Your task to perform on an android device: Show me popular games on the Play Store Image 0: 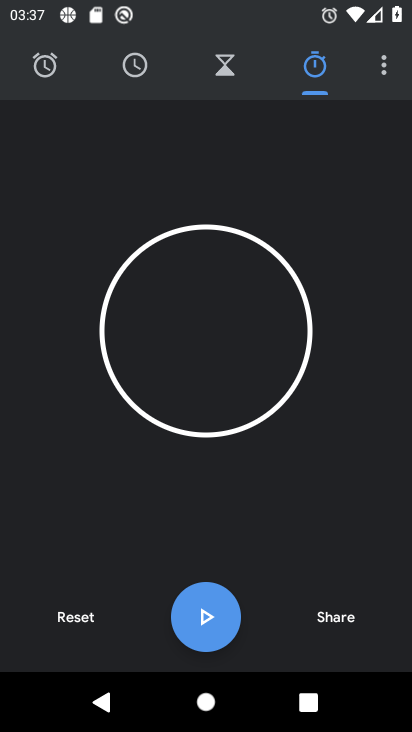
Step 0: press back button
Your task to perform on an android device: Show me popular games on the Play Store Image 1: 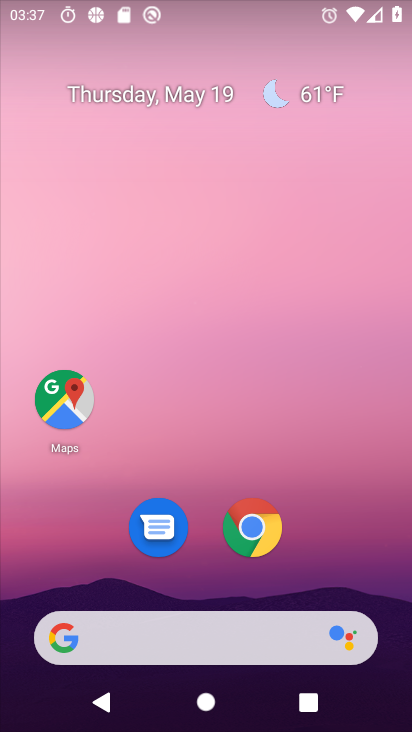
Step 1: drag from (233, 588) to (292, 2)
Your task to perform on an android device: Show me popular games on the Play Store Image 2: 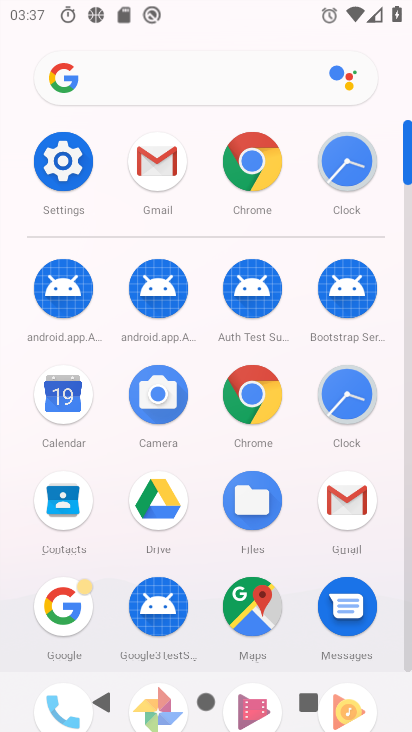
Step 2: drag from (165, 598) to (266, 102)
Your task to perform on an android device: Show me popular games on the Play Store Image 3: 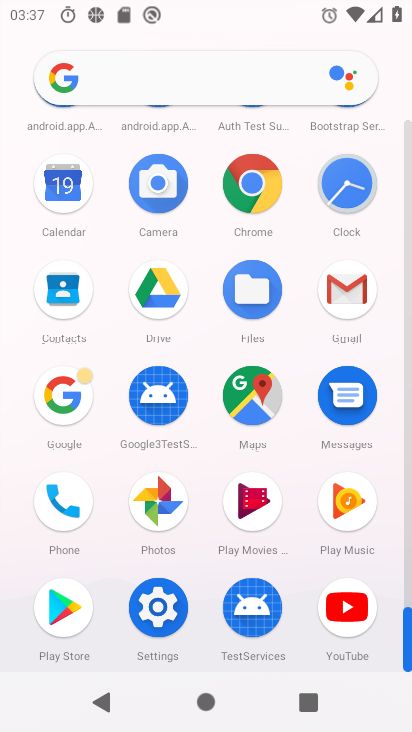
Step 3: click (61, 618)
Your task to perform on an android device: Show me popular games on the Play Store Image 4: 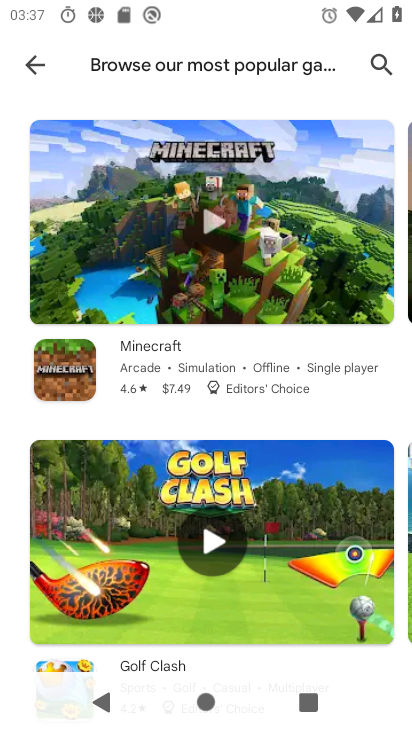
Step 4: task complete